Your task to perform on an android device: Clear all items from cart on bestbuy.com. Add "corsair k70" to the cart on bestbuy.com Image 0: 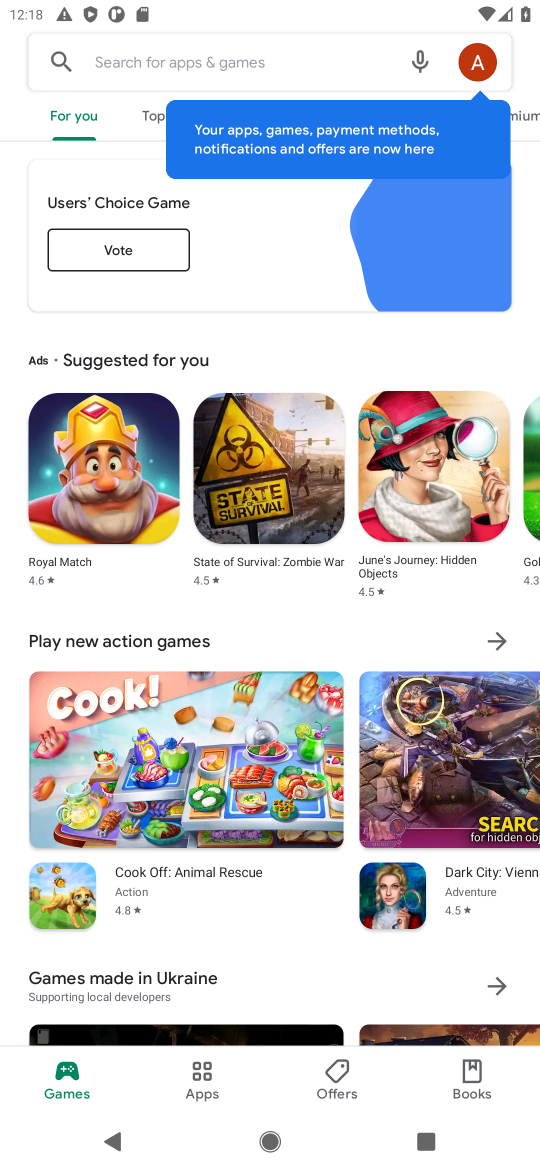
Step 0: press home button
Your task to perform on an android device: Clear all items from cart on bestbuy.com. Add "corsair k70" to the cart on bestbuy.com Image 1: 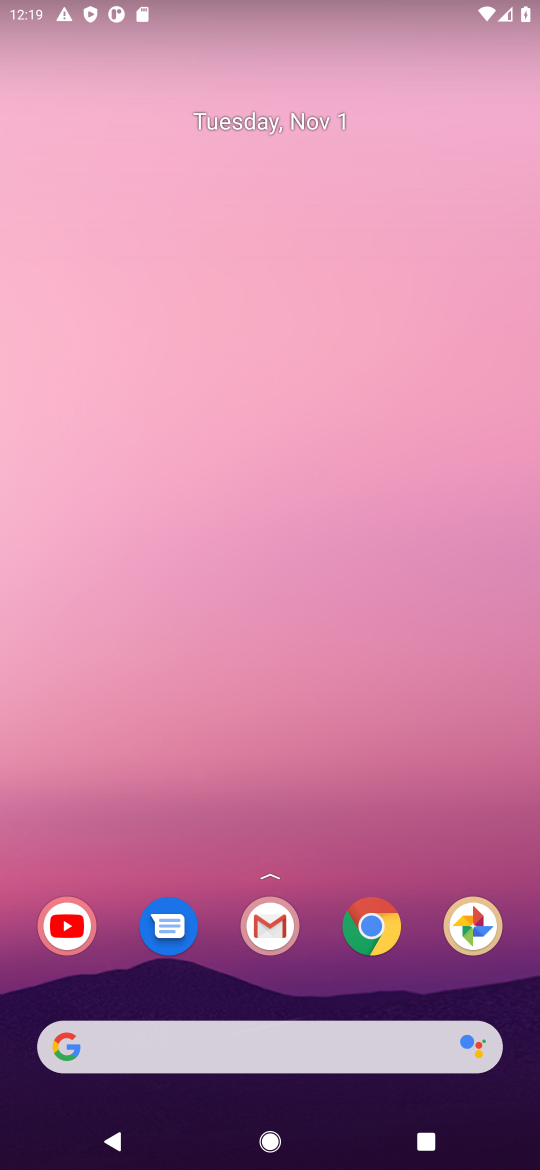
Step 1: click (375, 933)
Your task to perform on an android device: Clear all items from cart on bestbuy.com. Add "corsair k70" to the cart on bestbuy.com Image 2: 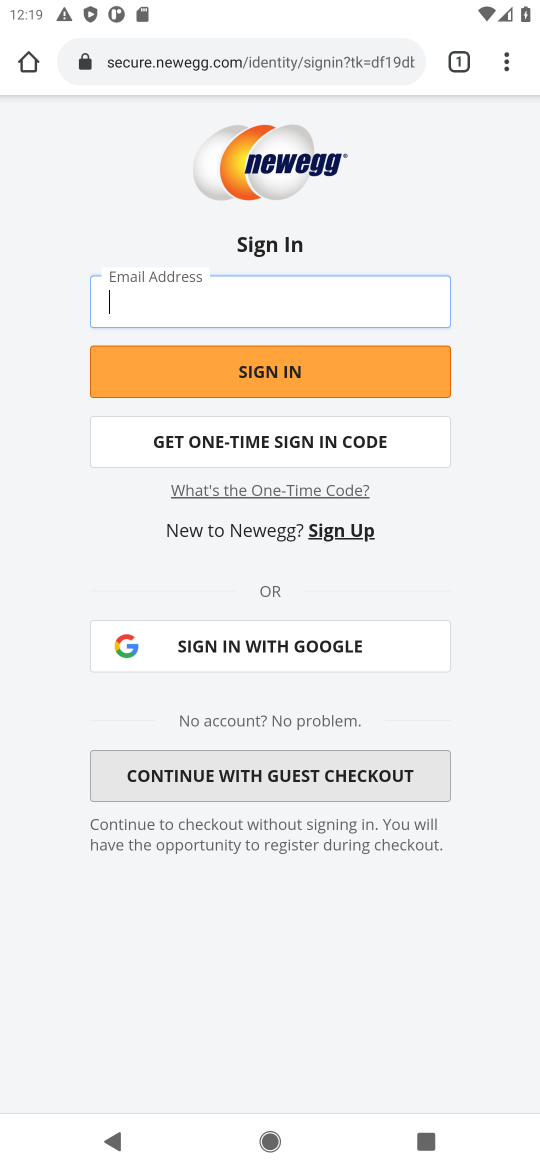
Step 2: click (164, 68)
Your task to perform on an android device: Clear all items from cart on bestbuy.com. Add "corsair k70" to the cart on bestbuy.com Image 3: 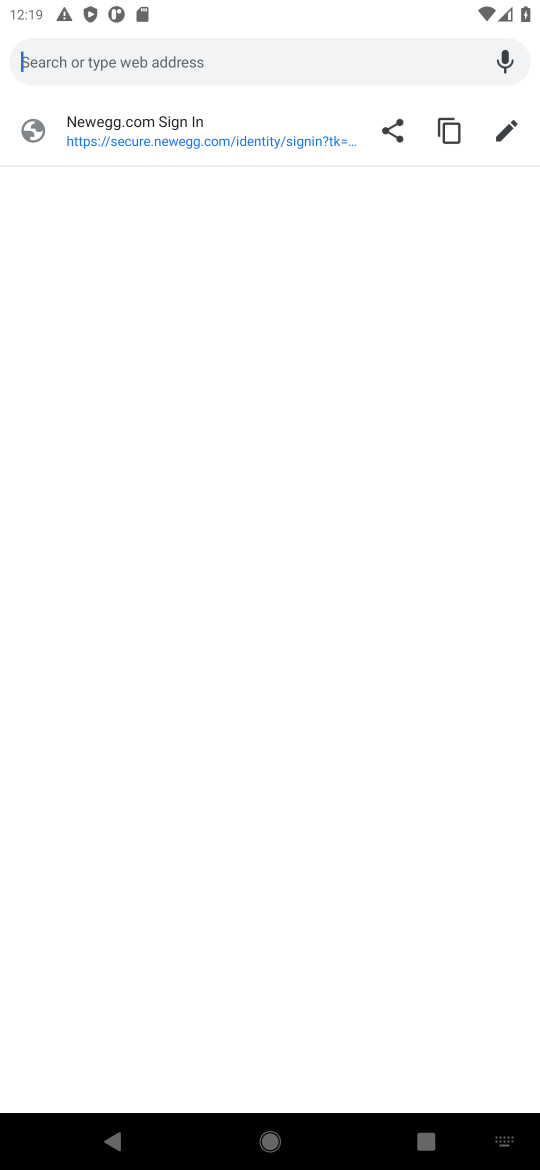
Step 3: type "bestbuy.com"
Your task to perform on an android device: Clear all items from cart on bestbuy.com. Add "corsair k70" to the cart on bestbuy.com Image 4: 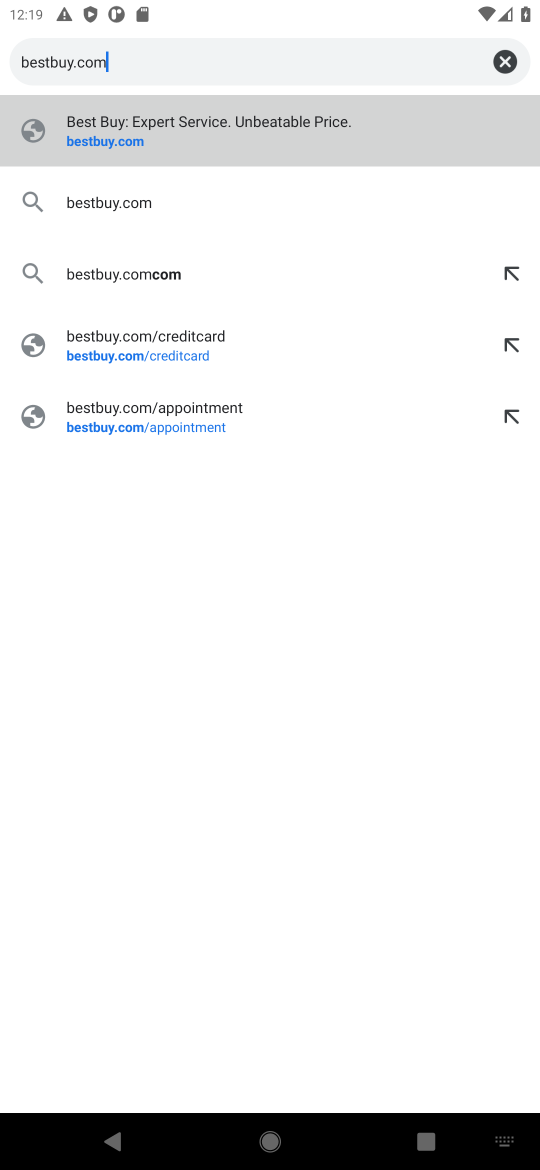
Step 4: press enter
Your task to perform on an android device: Clear all items from cart on bestbuy.com. Add "corsair k70" to the cart on bestbuy.com Image 5: 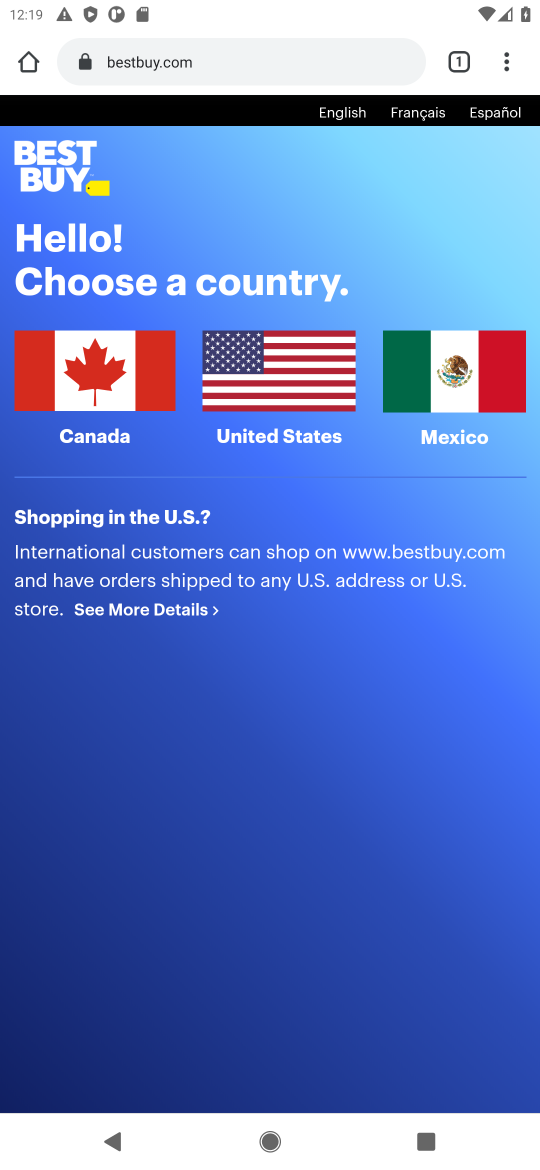
Step 5: click (251, 374)
Your task to perform on an android device: Clear all items from cart on bestbuy.com. Add "corsair k70" to the cart on bestbuy.com Image 6: 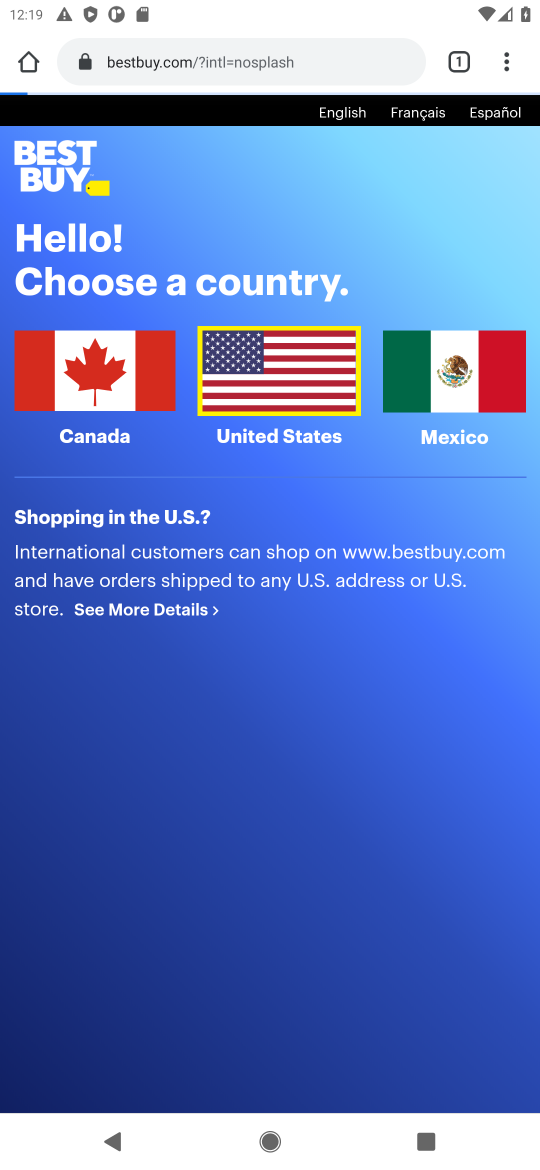
Step 6: click (286, 405)
Your task to perform on an android device: Clear all items from cart on bestbuy.com. Add "corsair k70" to the cart on bestbuy.com Image 7: 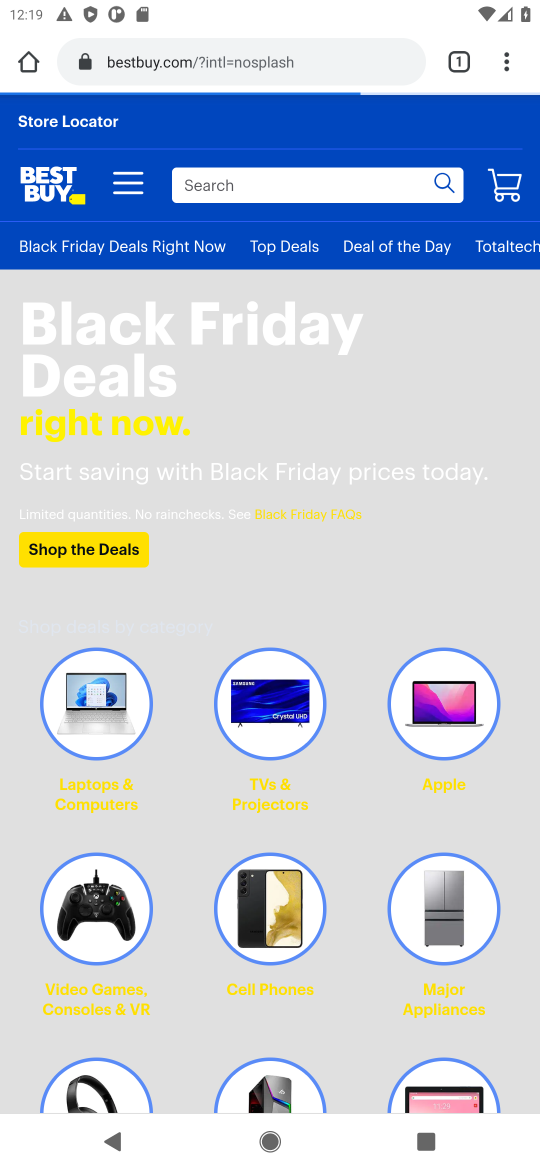
Step 7: click (248, 182)
Your task to perform on an android device: Clear all items from cart on bestbuy.com. Add "corsair k70" to the cart on bestbuy.com Image 8: 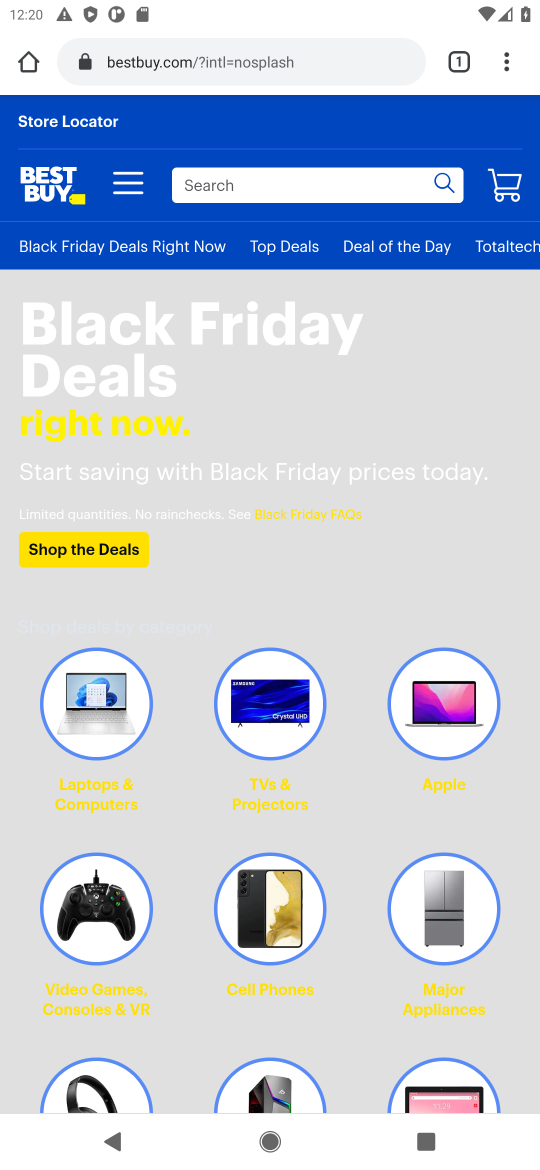
Step 8: click (514, 185)
Your task to perform on an android device: Clear all items from cart on bestbuy.com. Add "corsair k70" to the cart on bestbuy.com Image 9: 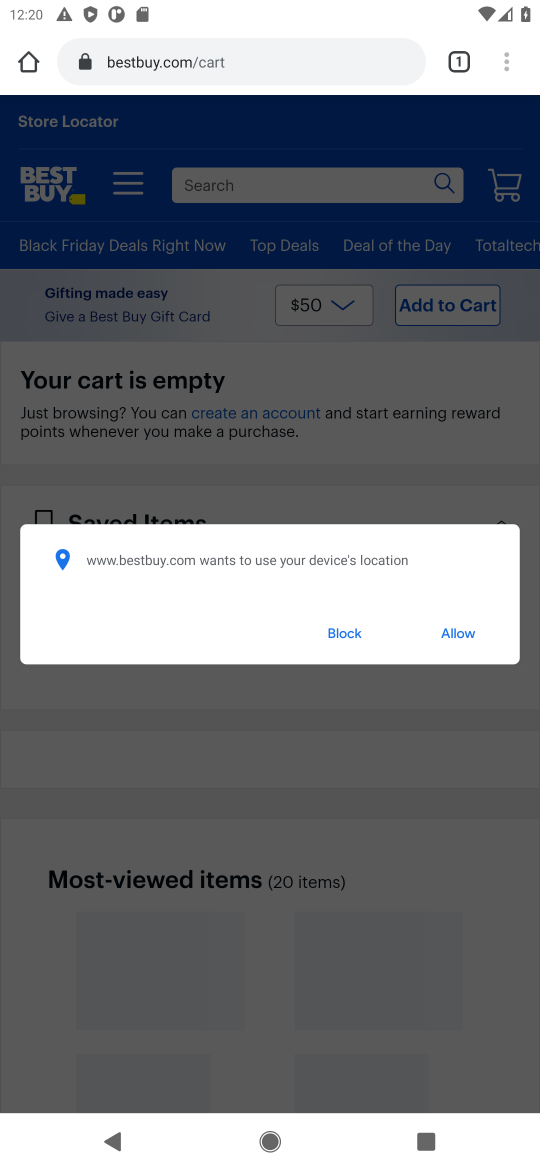
Step 9: click (460, 631)
Your task to perform on an android device: Clear all items from cart on bestbuy.com. Add "corsair k70" to the cart on bestbuy.com Image 10: 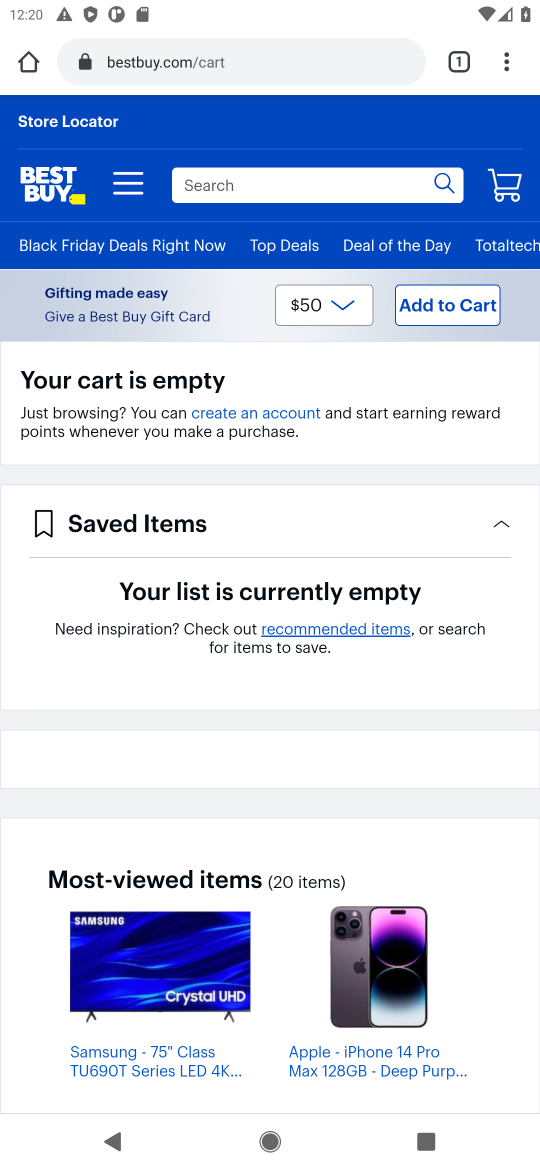
Step 10: click (322, 190)
Your task to perform on an android device: Clear all items from cart on bestbuy.com. Add "corsair k70" to the cart on bestbuy.com Image 11: 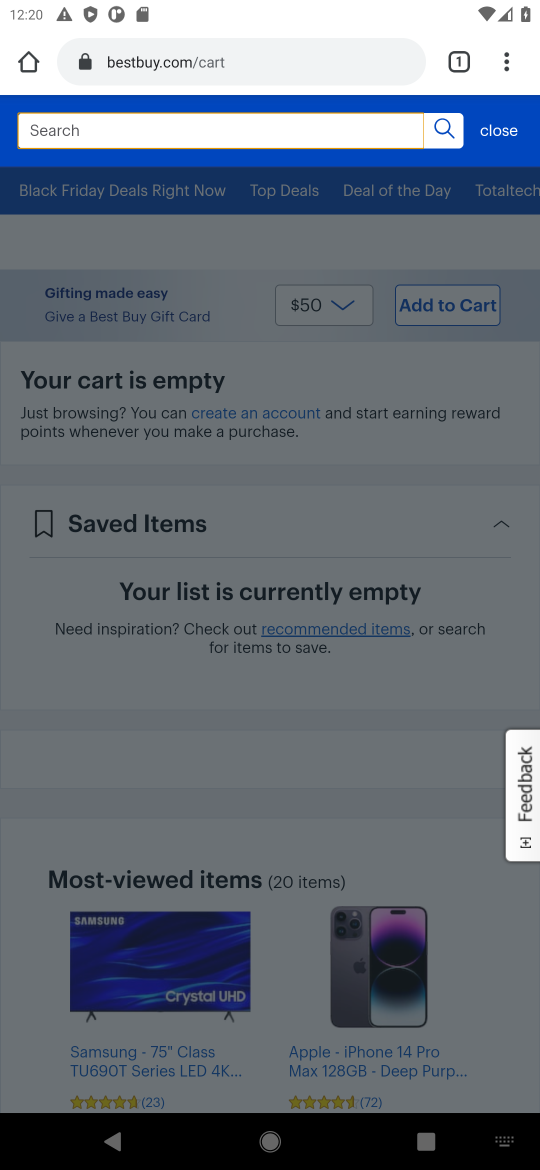
Step 11: type "corsair k70"
Your task to perform on an android device: Clear all items from cart on bestbuy.com. Add "corsair k70" to the cart on bestbuy.com Image 12: 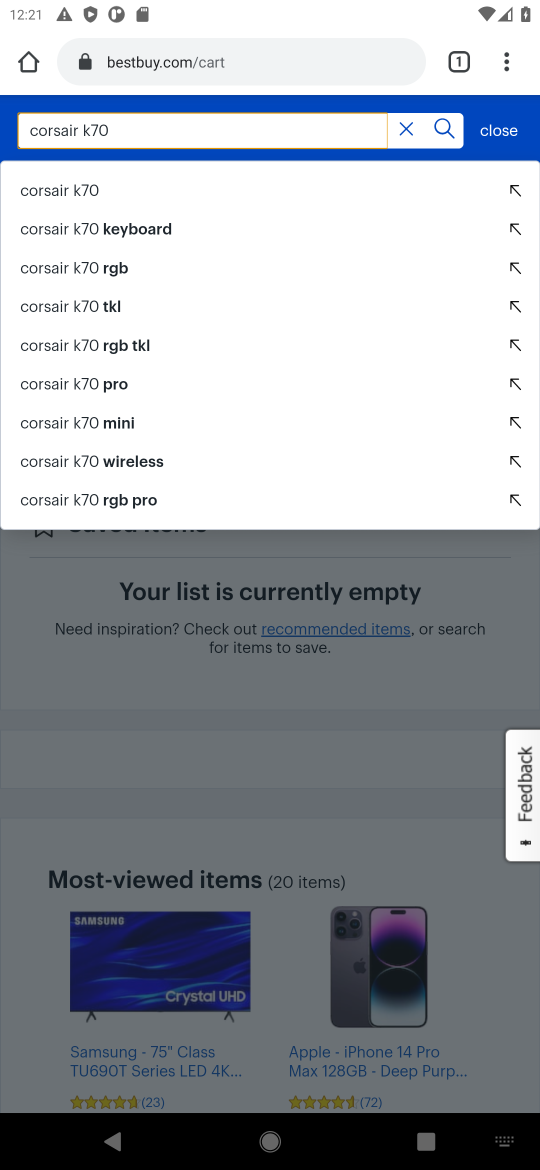
Step 12: click (49, 186)
Your task to perform on an android device: Clear all items from cart on bestbuy.com. Add "corsair k70" to the cart on bestbuy.com Image 13: 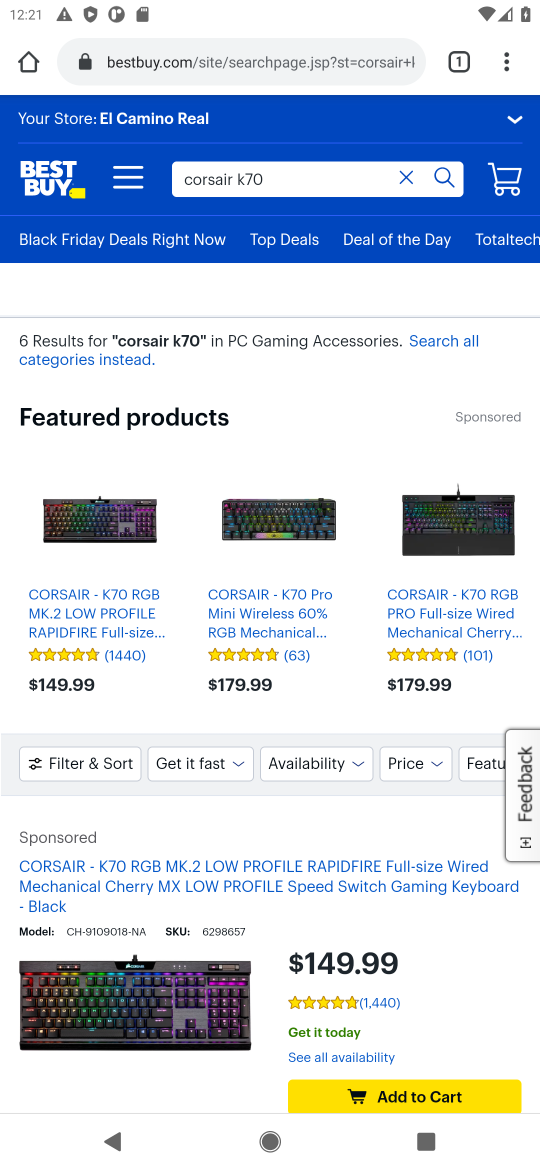
Step 13: drag from (324, 933) to (301, 804)
Your task to perform on an android device: Clear all items from cart on bestbuy.com. Add "corsair k70" to the cart on bestbuy.com Image 14: 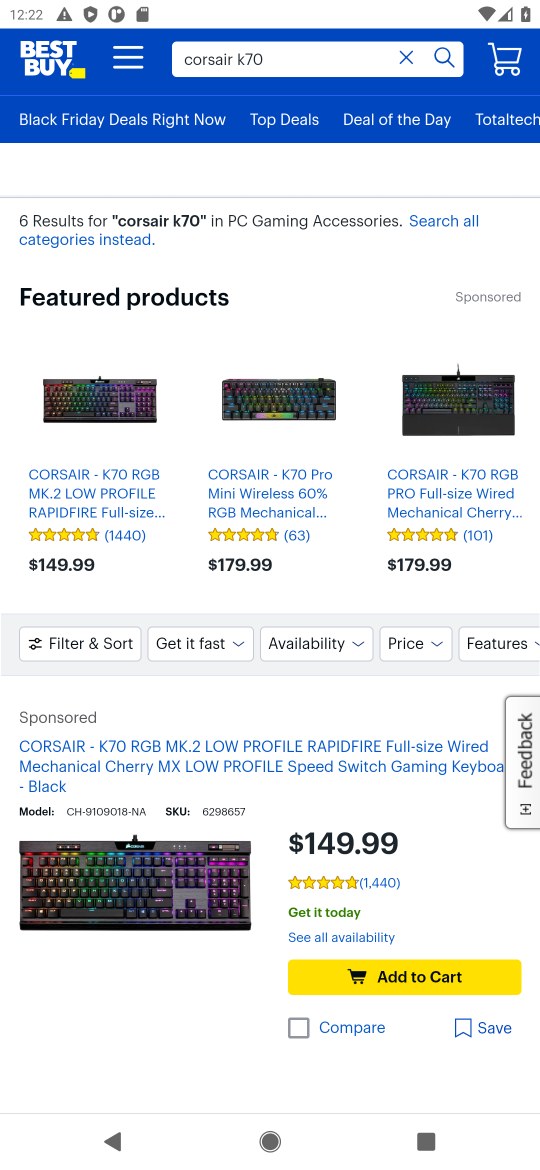
Step 14: click (345, 982)
Your task to perform on an android device: Clear all items from cart on bestbuy.com. Add "corsair k70" to the cart on bestbuy.com Image 15: 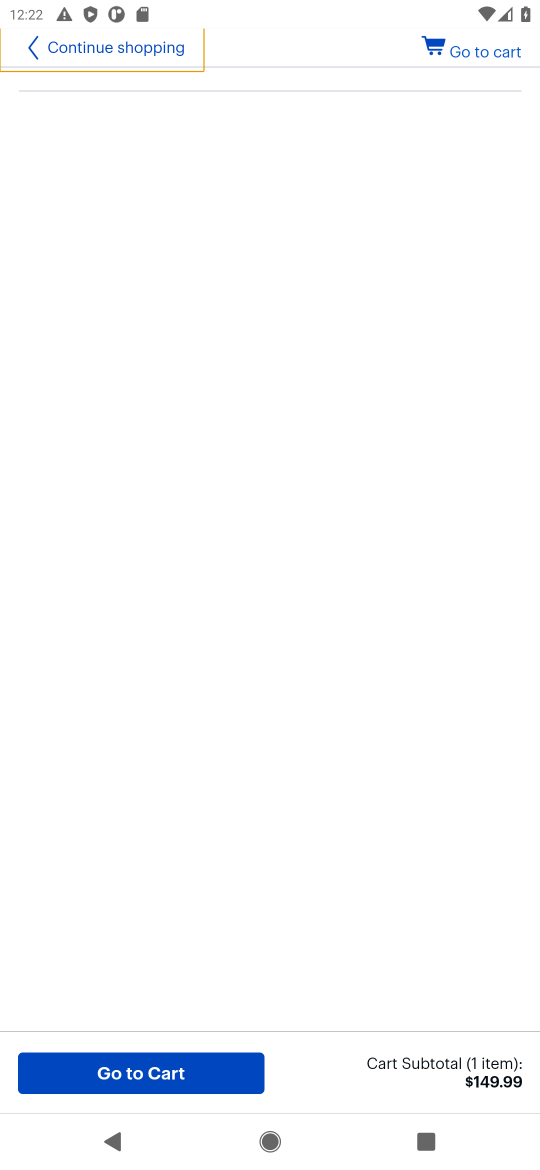
Step 15: task complete